Your task to perform on an android device: toggle sleep mode Image 0: 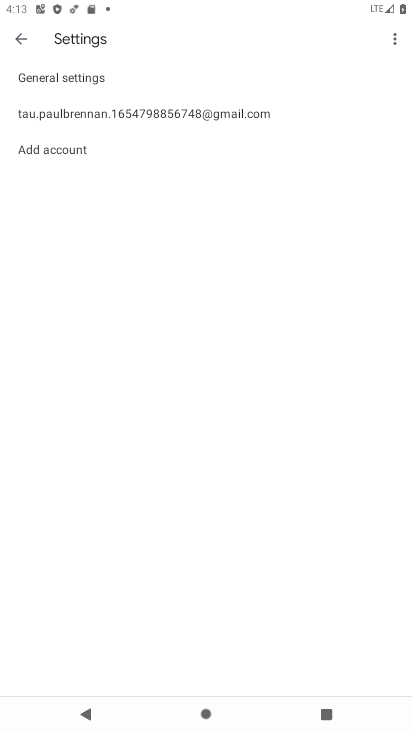
Step 0: press home button
Your task to perform on an android device: toggle sleep mode Image 1: 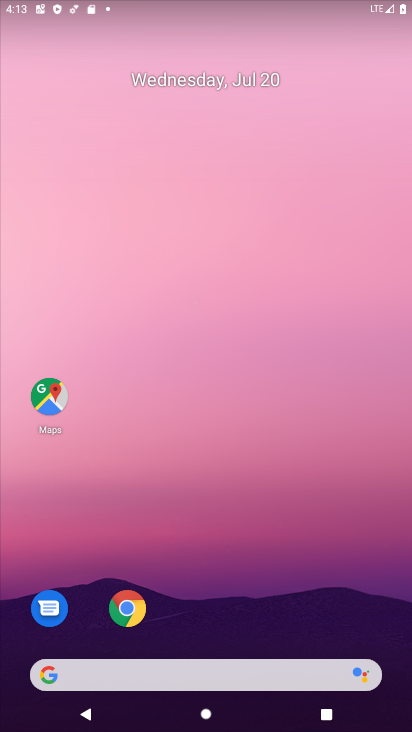
Step 1: drag from (149, 645) to (211, 283)
Your task to perform on an android device: toggle sleep mode Image 2: 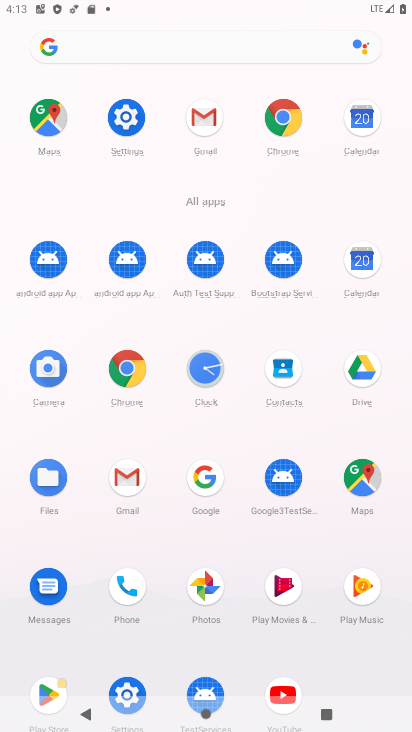
Step 2: click (124, 699)
Your task to perform on an android device: toggle sleep mode Image 3: 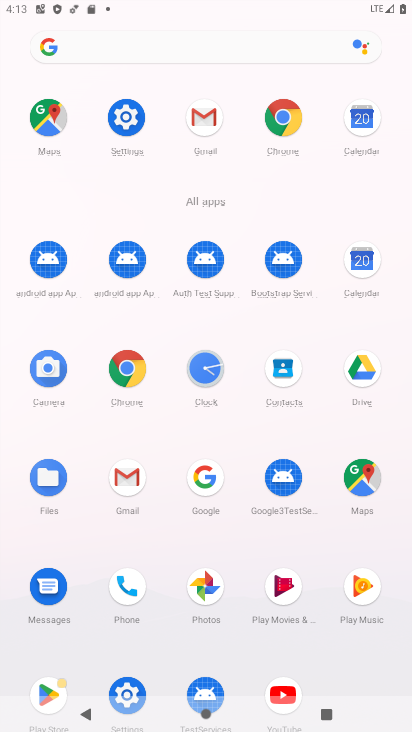
Step 3: click (131, 691)
Your task to perform on an android device: toggle sleep mode Image 4: 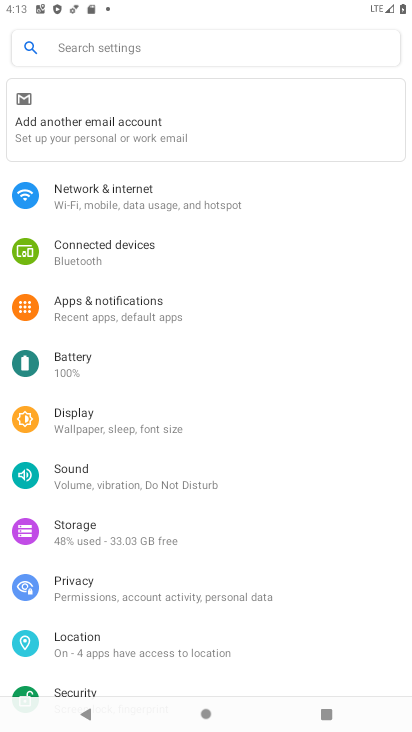
Step 4: click (120, 424)
Your task to perform on an android device: toggle sleep mode Image 5: 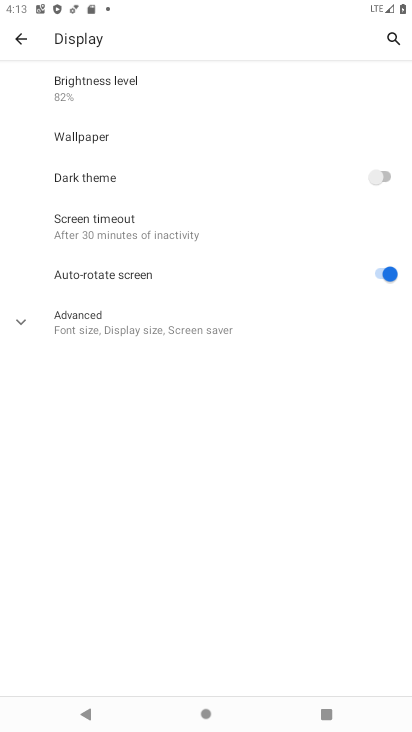
Step 5: click (125, 326)
Your task to perform on an android device: toggle sleep mode Image 6: 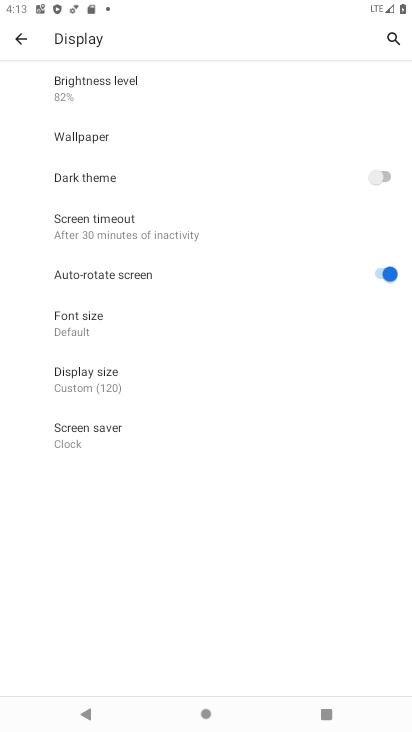
Step 6: task complete